Your task to perform on an android device: Open Google Chrome and click the shortcut for Amazon.com Image 0: 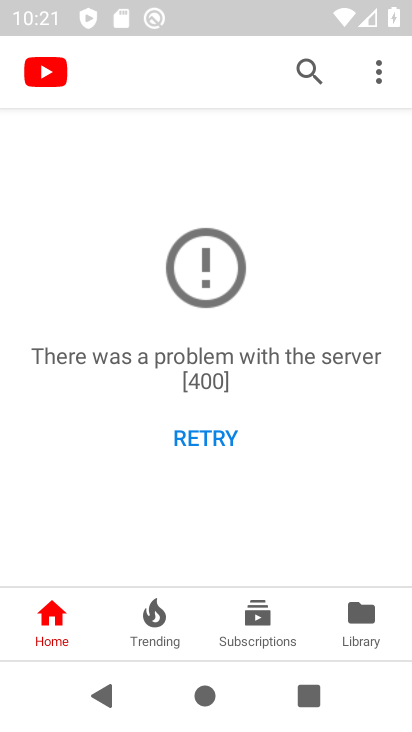
Step 0: press home button
Your task to perform on an android device: Open Google Chrome and click the shortcut for Amazon.com Image 1: 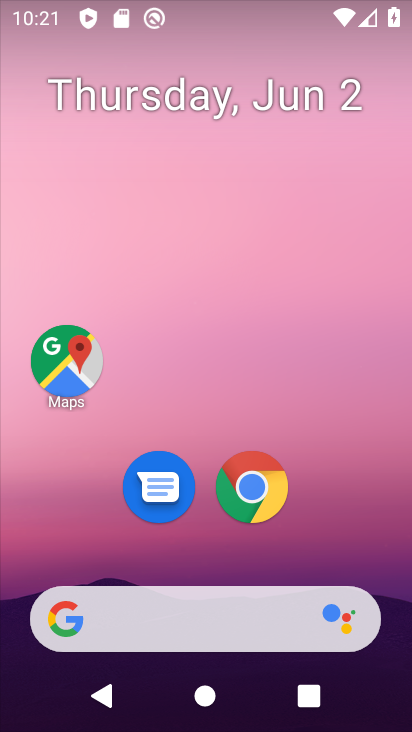
Step 1: click (262, 466)
Your task to perform on an android device: Open Google Chrome and click the shortcut for Amazon.com Image 2: 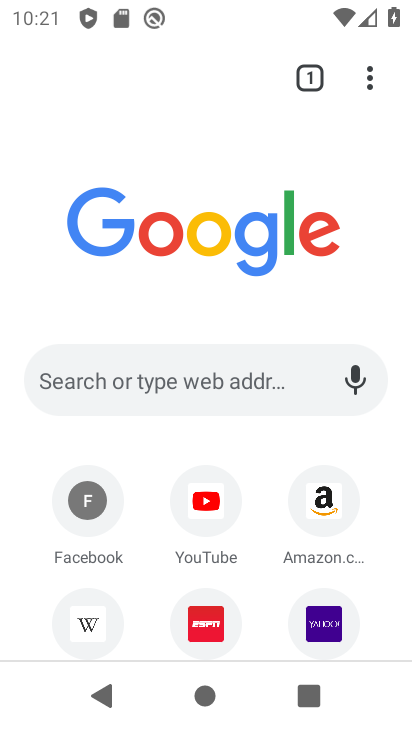
Step 2: click (312, 506)
Your task to perform on an android device: Open Google Chrome and click the shortcut for Amazon.com Image 3: 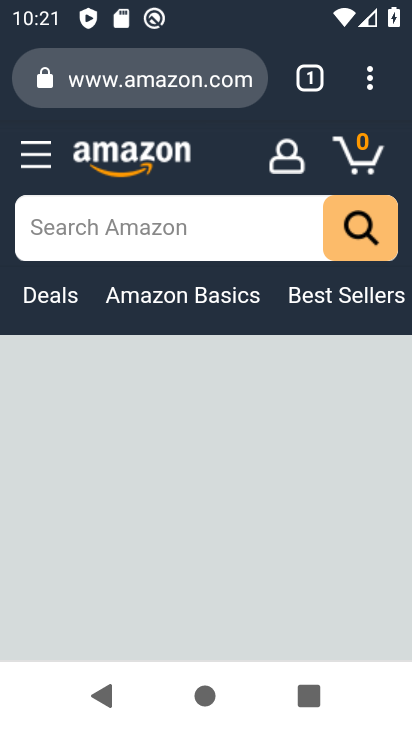
Step 3: click (376, 90)
Your task to perform on an android device: Open Google Chrome and click the shortcut for Amazon.com Image 4: 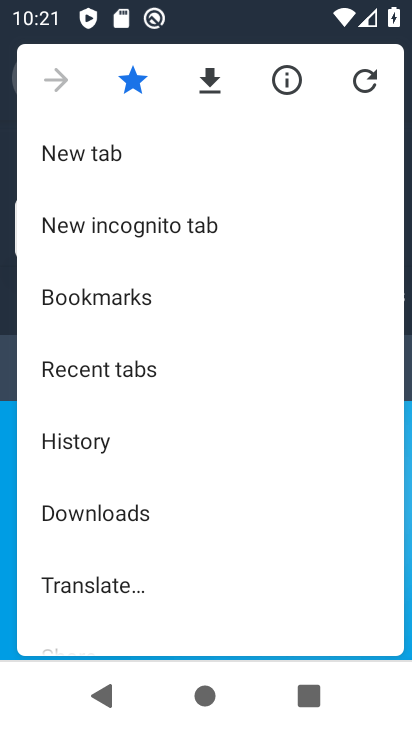
Step 4: drag from (158, 540) to (82, 174)
Your task to perform on an android device: Open Google Chrome and click the shortcut for Amazon.com Image 5: 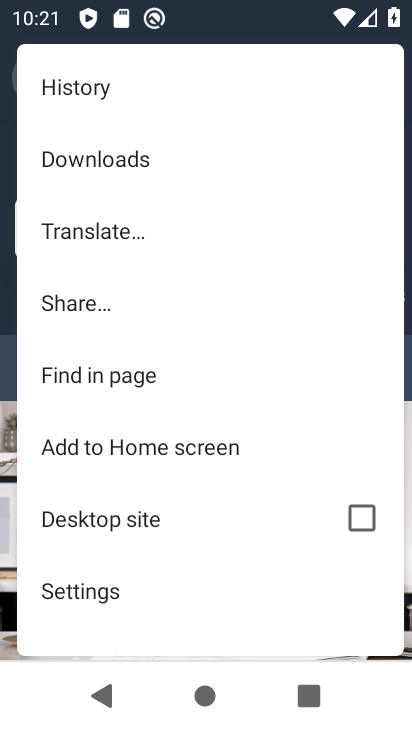
Step 5: click (153, 445)
Your task to perform on an android device: Open Google Chrome and click the shortcut for Amazon.com Image 6: 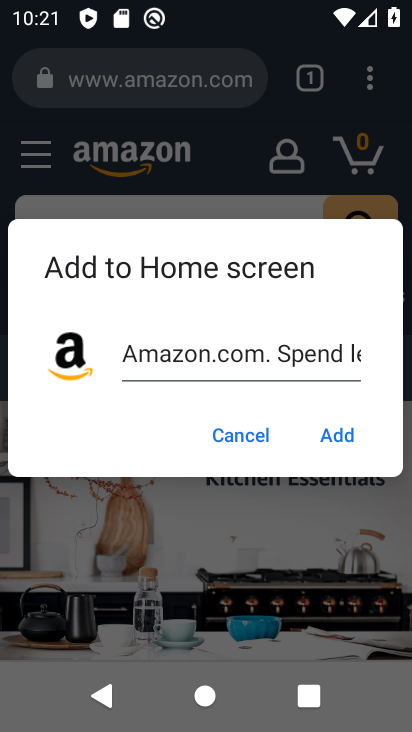
Step 6: click (331, 427)
Your task to perform on an android device: Open Google Chrome and click the shortcut for Amazon.com Image 7: 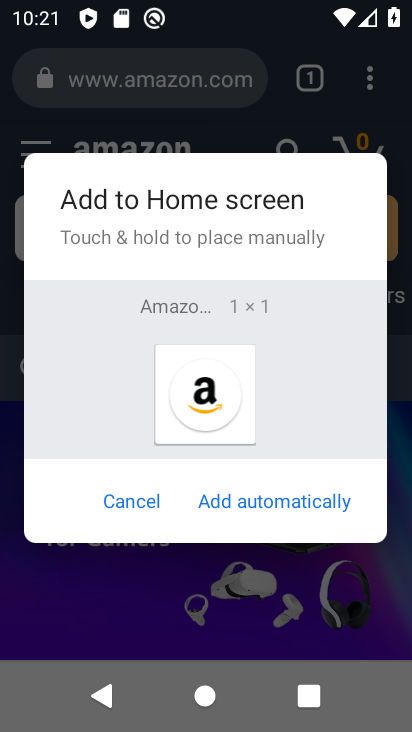
Step 7: click (298, 500)
Your task to perform on an android device: Open Google Chrome and click the shortcut for Amazon.com Image 8: 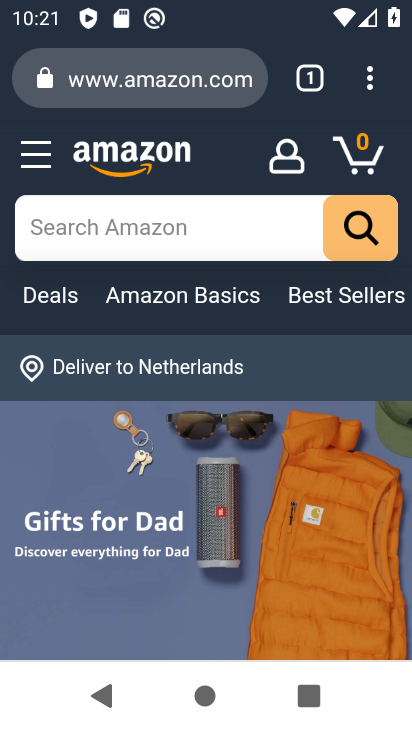
Step 8: task complete